Your task to perform on an android device: Search for handmade jewelry on Etsy. Image 0: 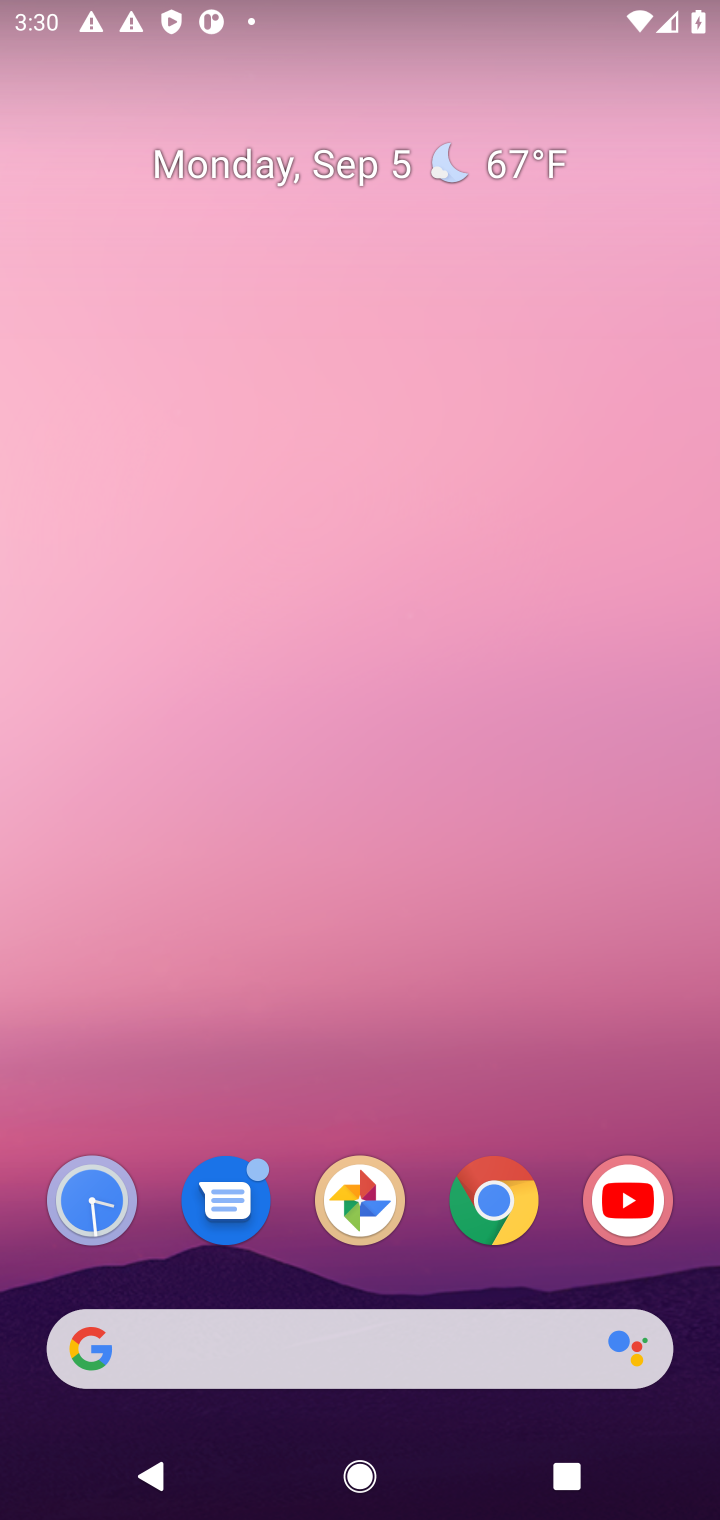
Step 0: click (212, 4)
Your task to perform on an android device: Search for handmade jewelry on Etsy. Image 1: 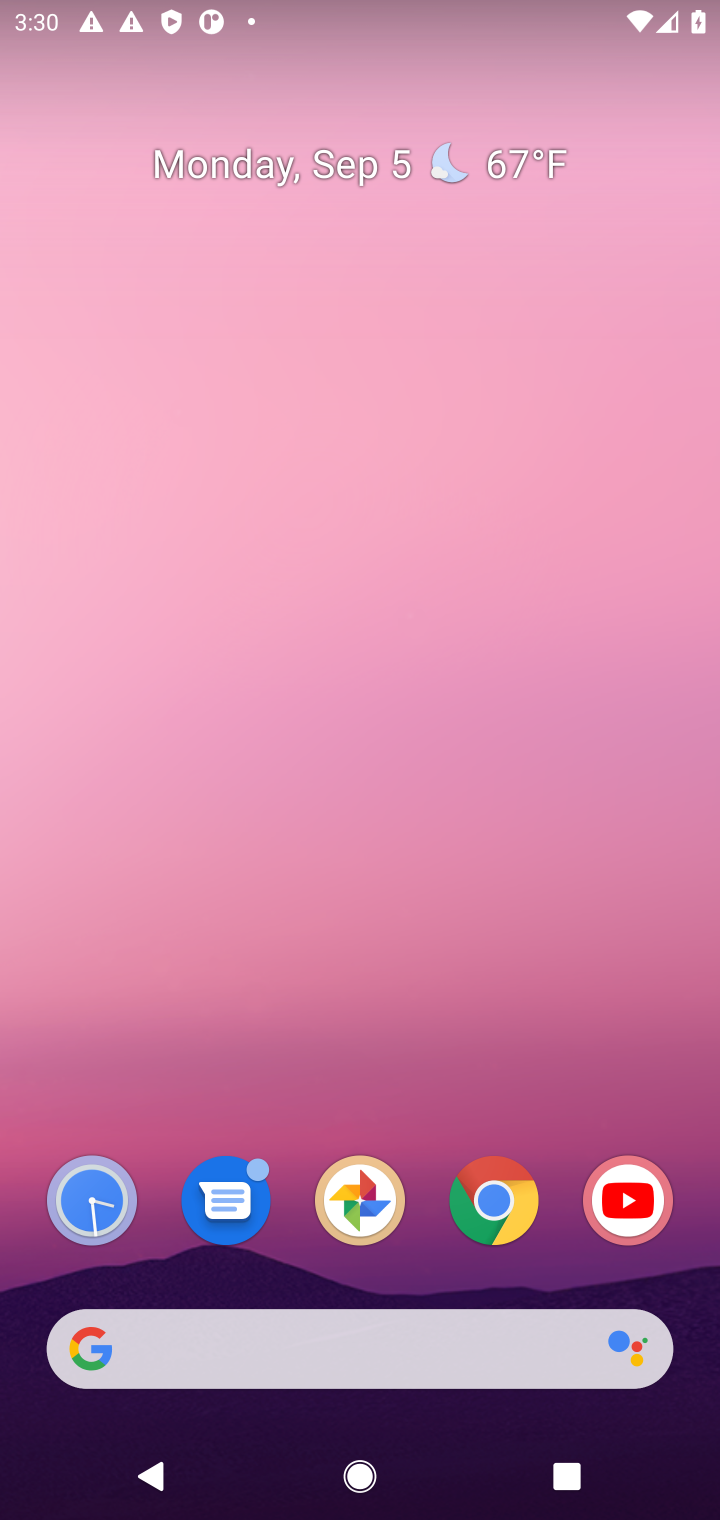
Step 1: click (414, 308)
Your task to perform on an android device: Search for handmade jewelry on Etsy. Image 2: 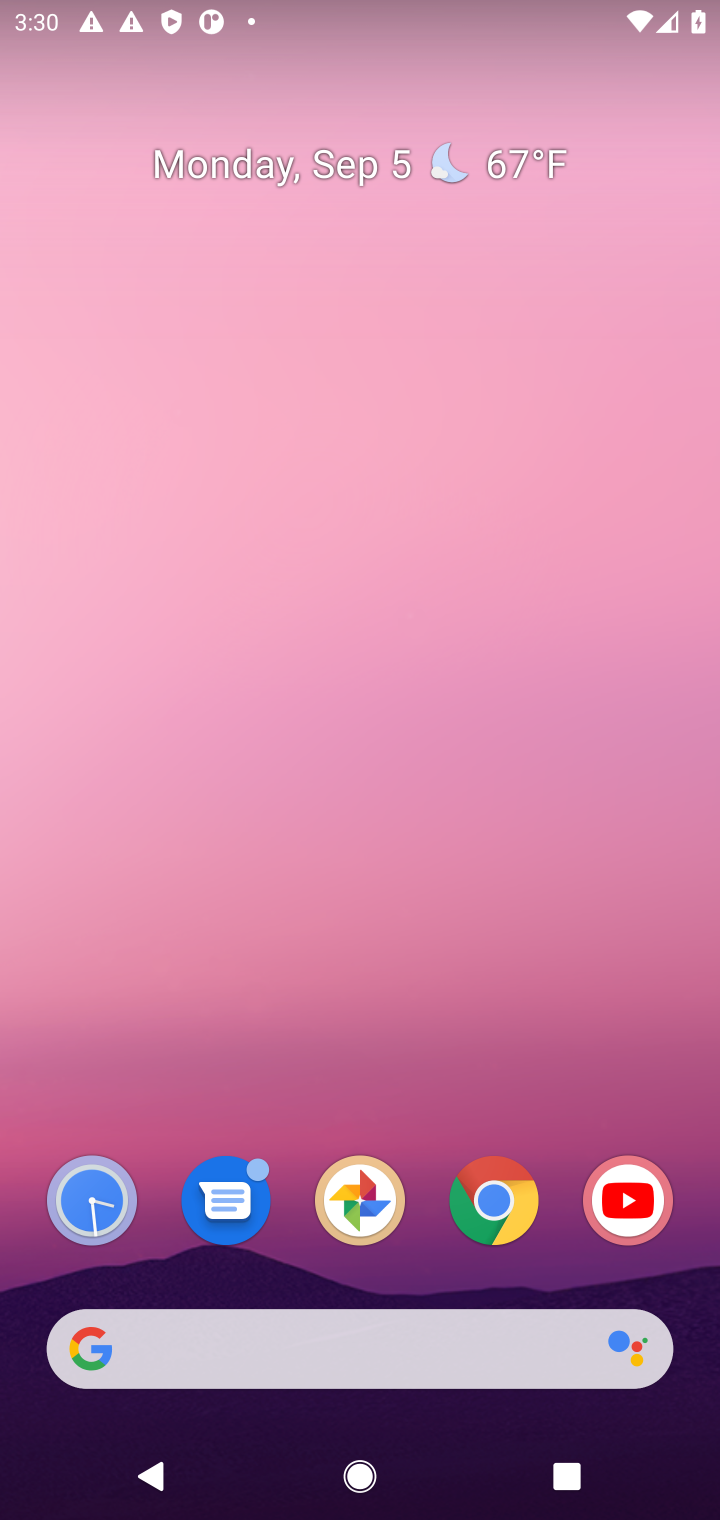
Step 2: click (495, 1189)
Your task to perform on an android device: Search for handmade jewelry on Etsy. Image 3: 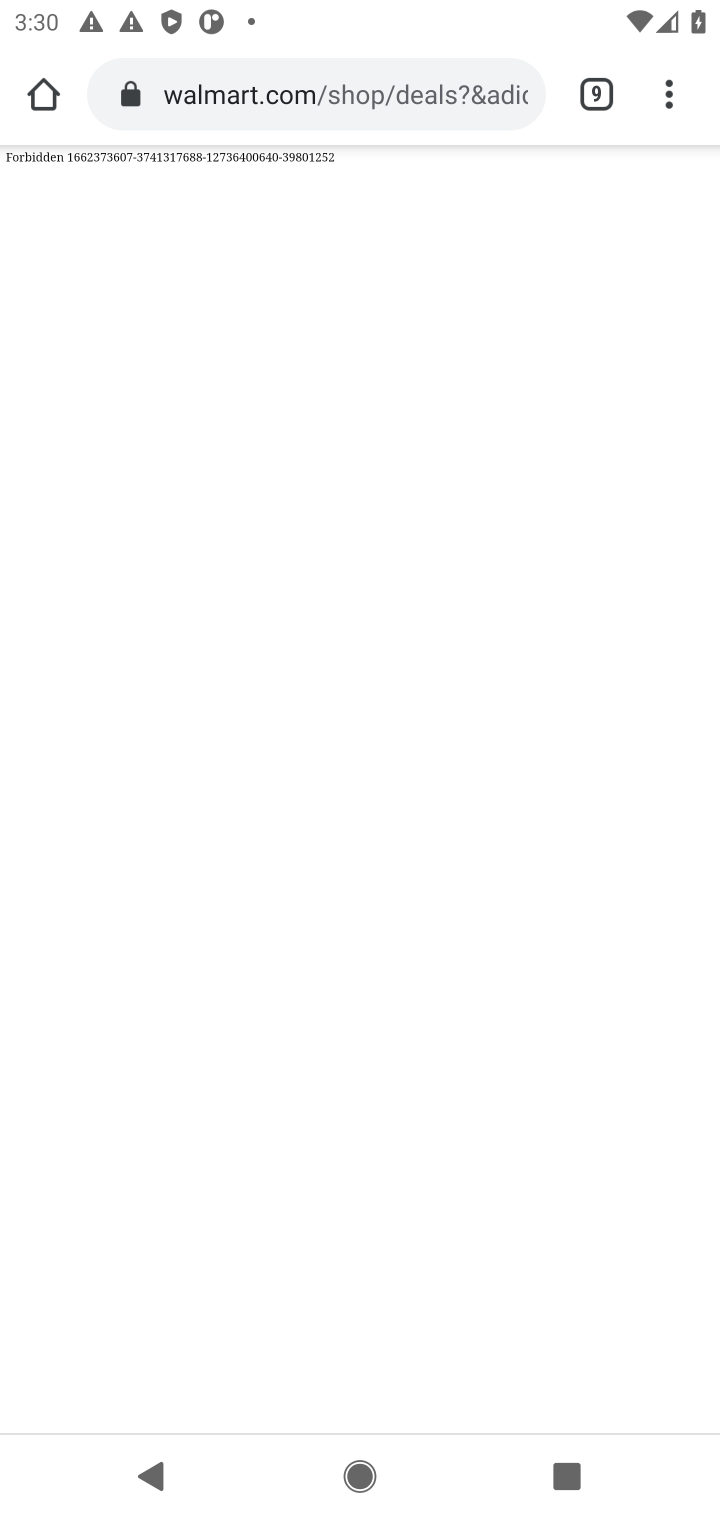
Step 3: click (596, 97)
Your task to perform on an android device: Search for handmade jewelry on Etsy. Image 4: 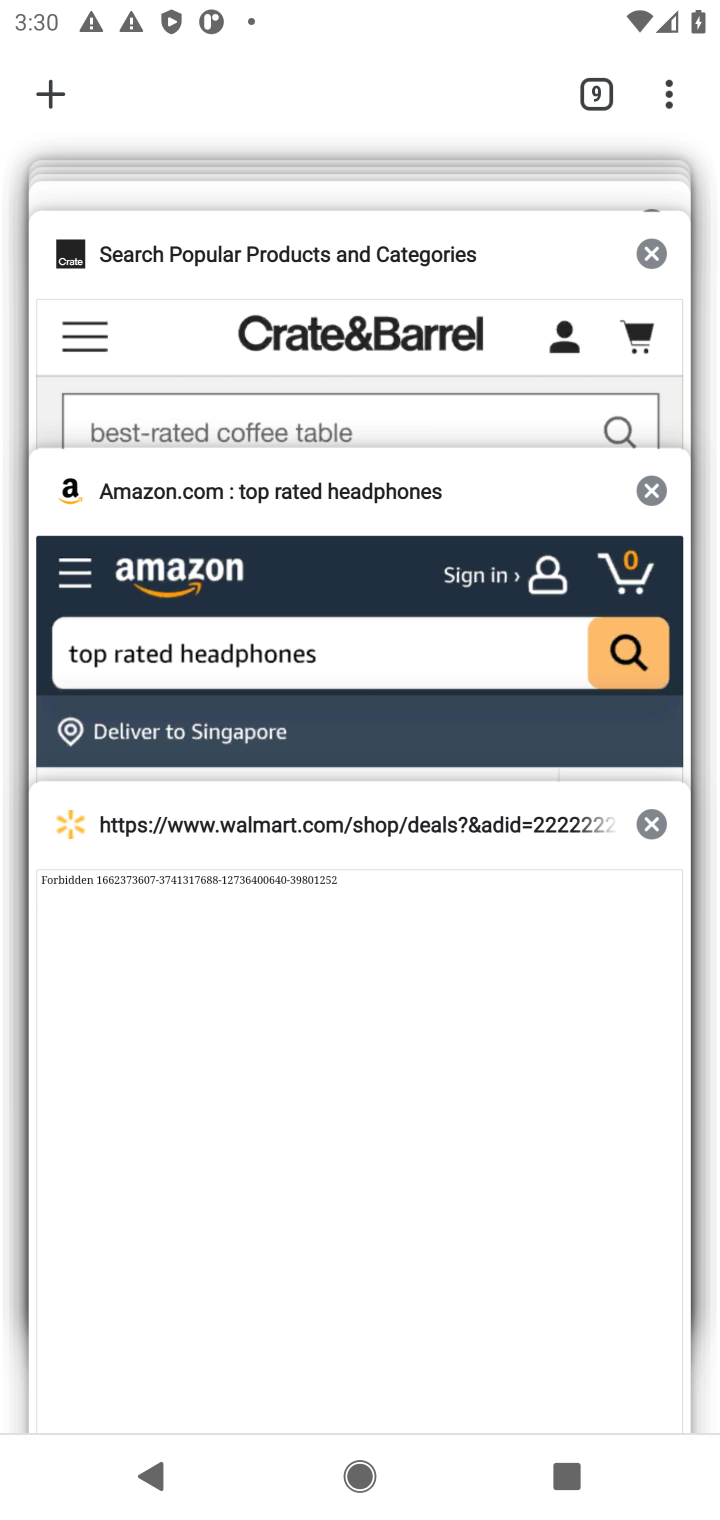
Step 4: click (53, 87)
Your task to perform on an android device: Search for handmade jewelry on Etsy. Image 5: 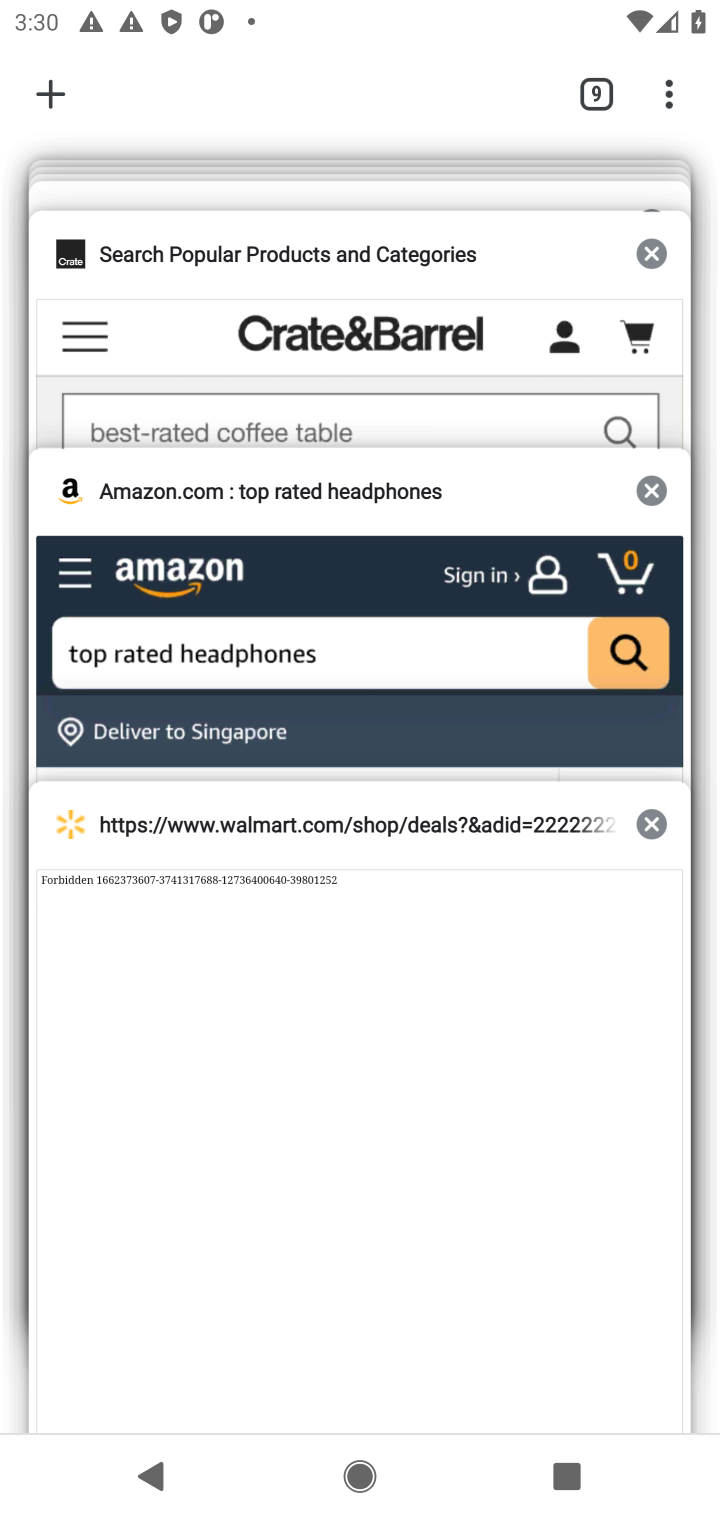
Step 5: click (53, 87)
Your task to perform on an android device: Search for handmade jewelry on Etsy. Image 6: 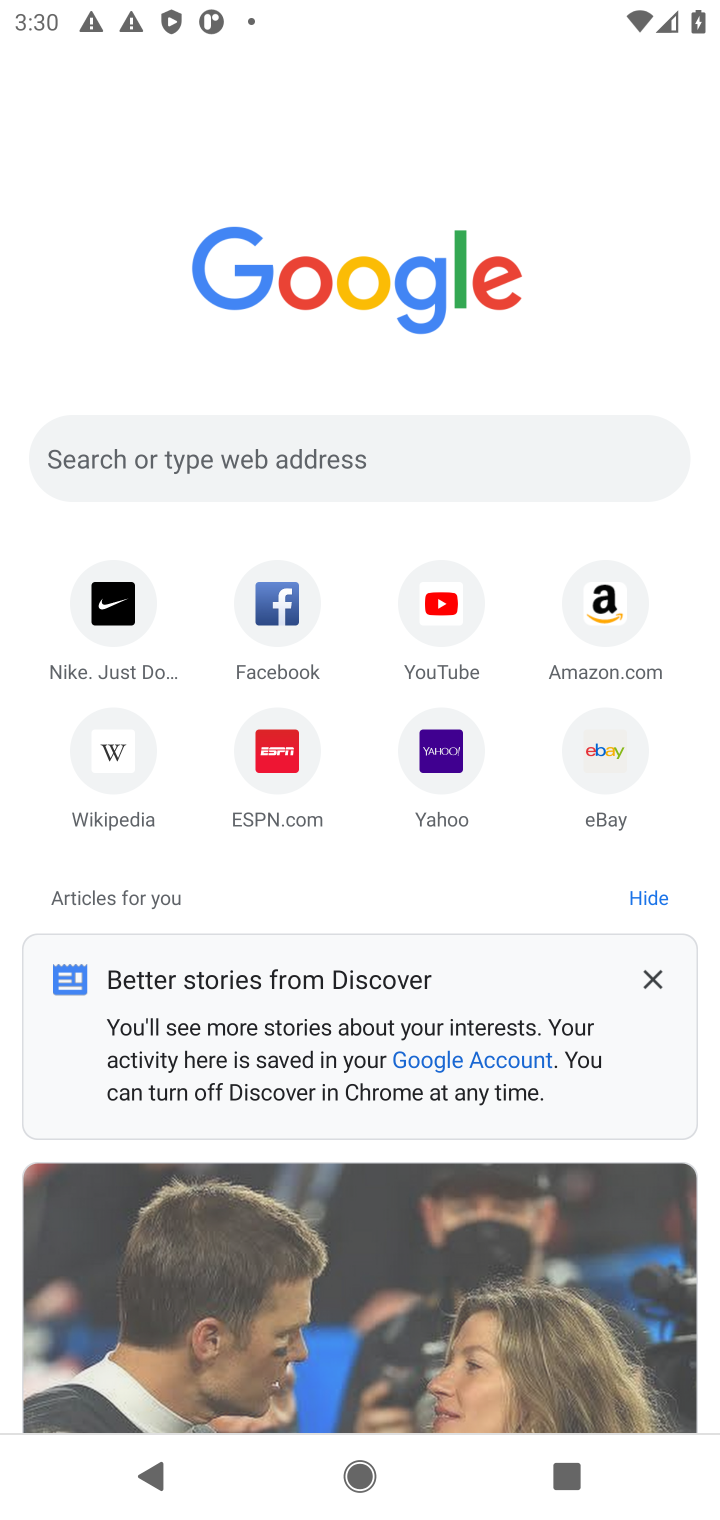
Step 6: click (235, 454)
Your task to perform on an android device: Search for handmade jewelry on Etsy. Image 7: 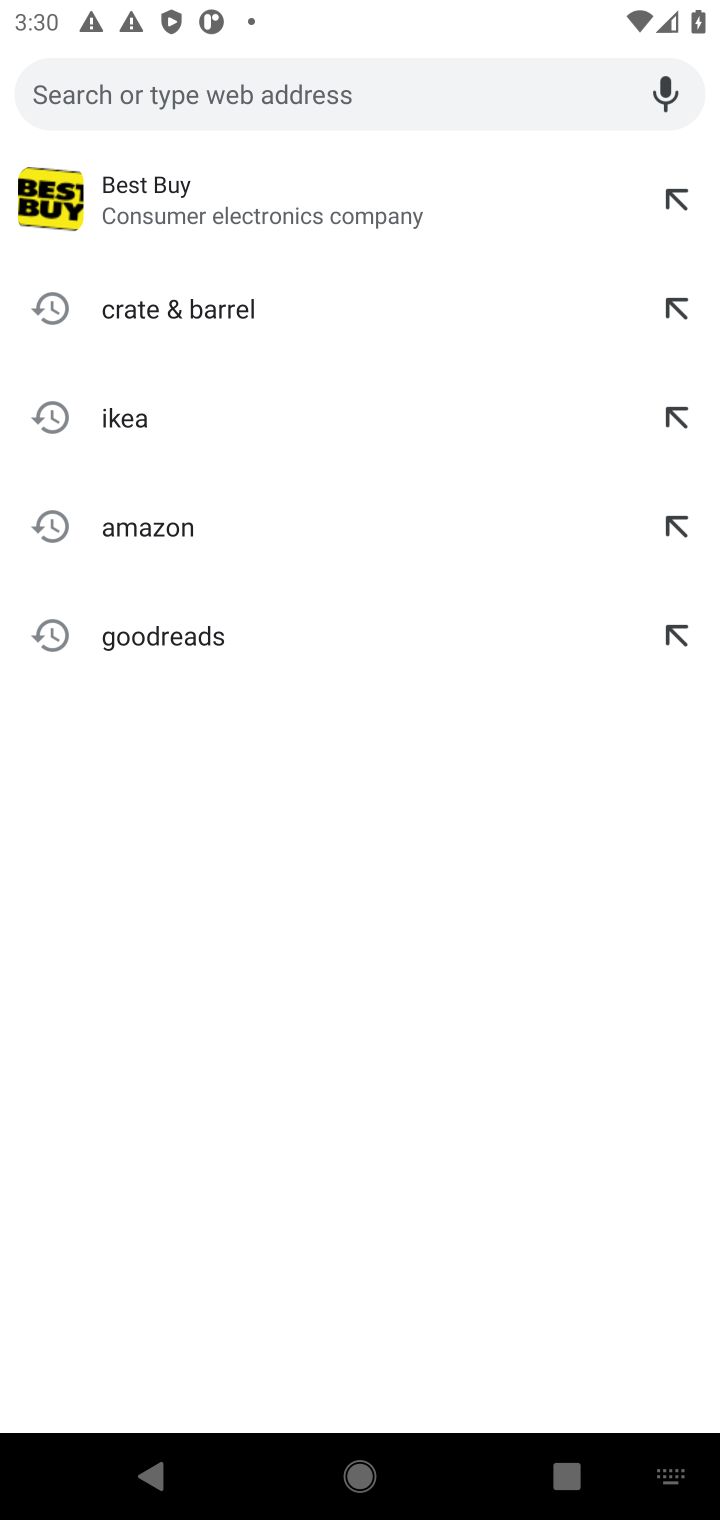
Step 7: type "etsy"
Your task to perform on an android device: Search for handmade jewelry on Etsy. Image 8: 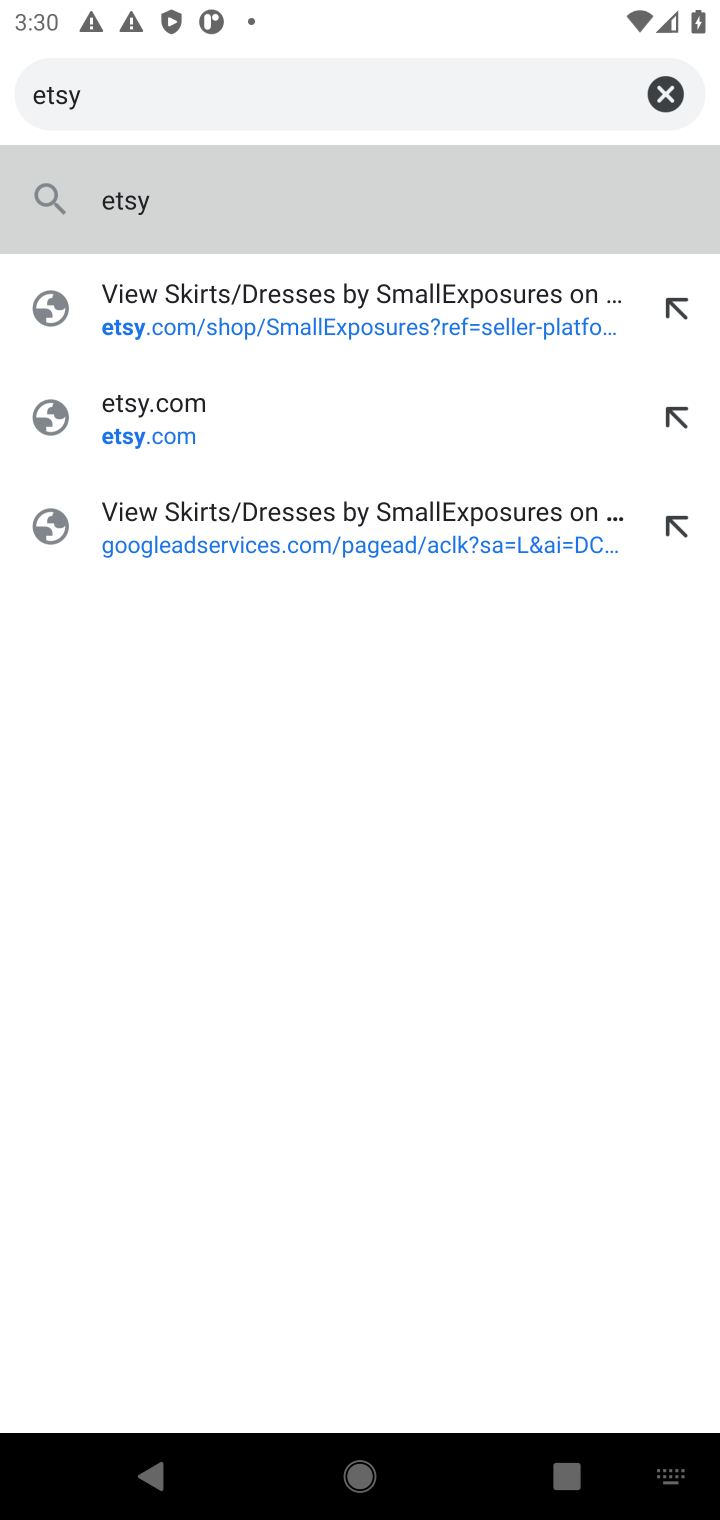
Step 8: click (134, 197)
Your task to perform on an android device: Search for handmade jewelry on Etsy. Image 9: 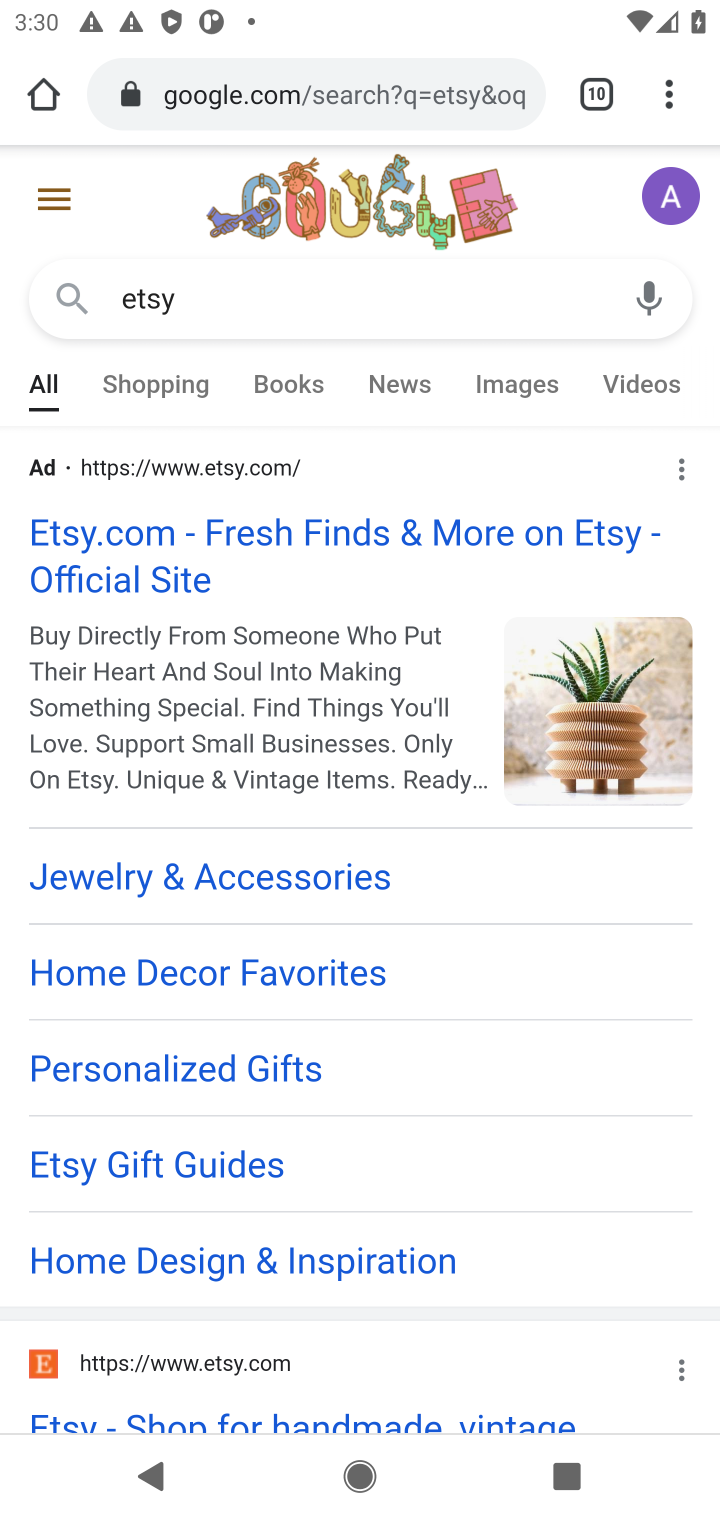
Step 9: click (179, 530)
Your task to perform on an android device: Search for handmade jewelry on Etsy. Image 10: 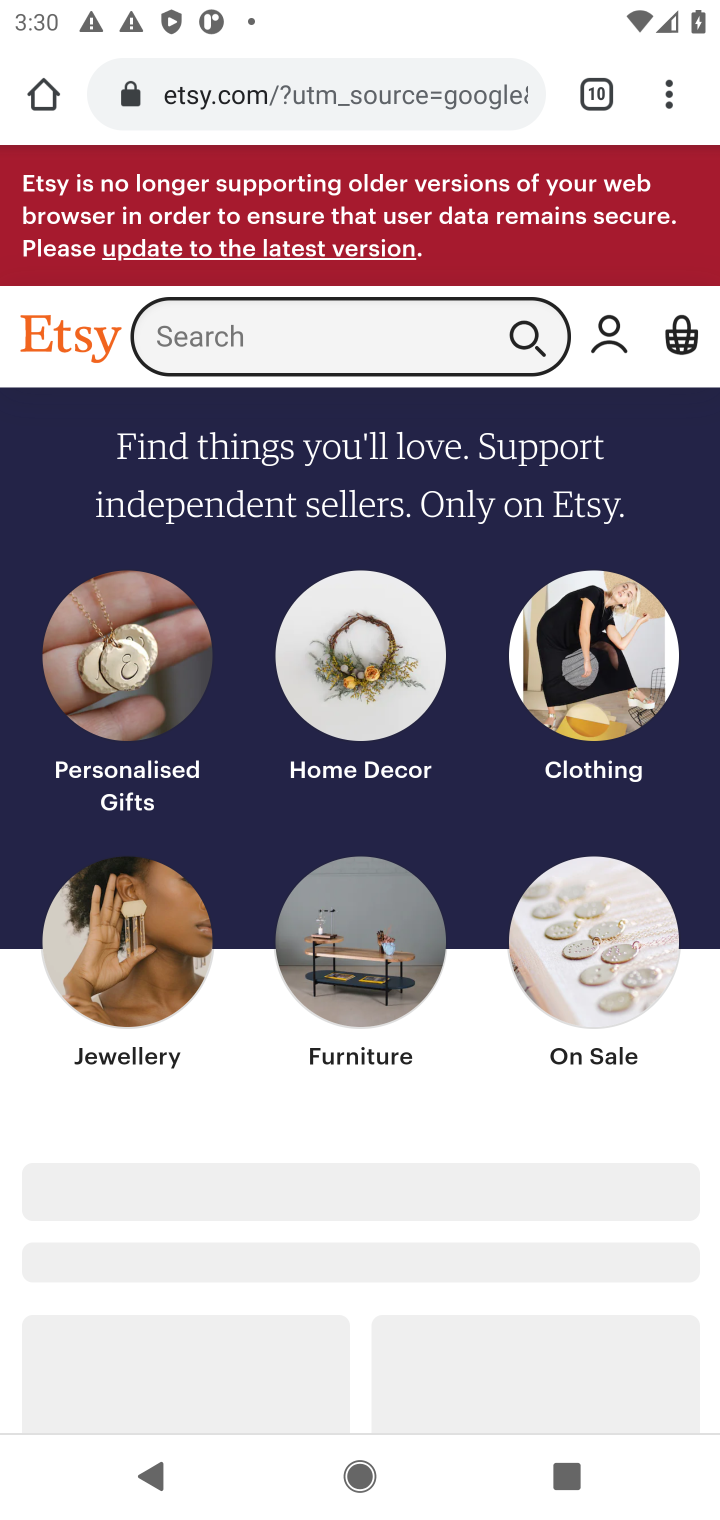
Step 10: click (284, 323)
Your task to perform on an android device: Search for handmade jewelry on Etsy. Image 11: 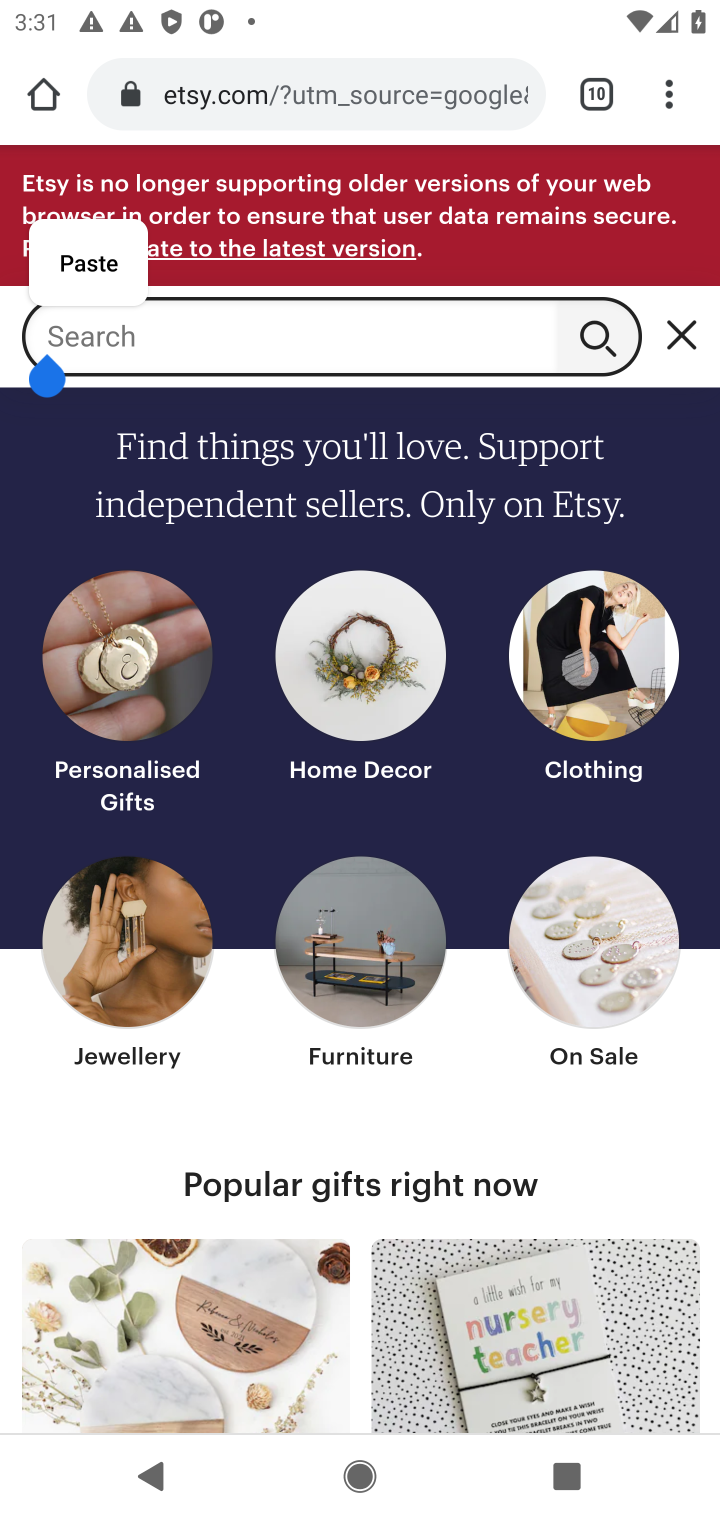
Step 11: type "handmade jewelry"
Your task to perform on an android device: Search for handmade jewelry on Etsy. Image 12: 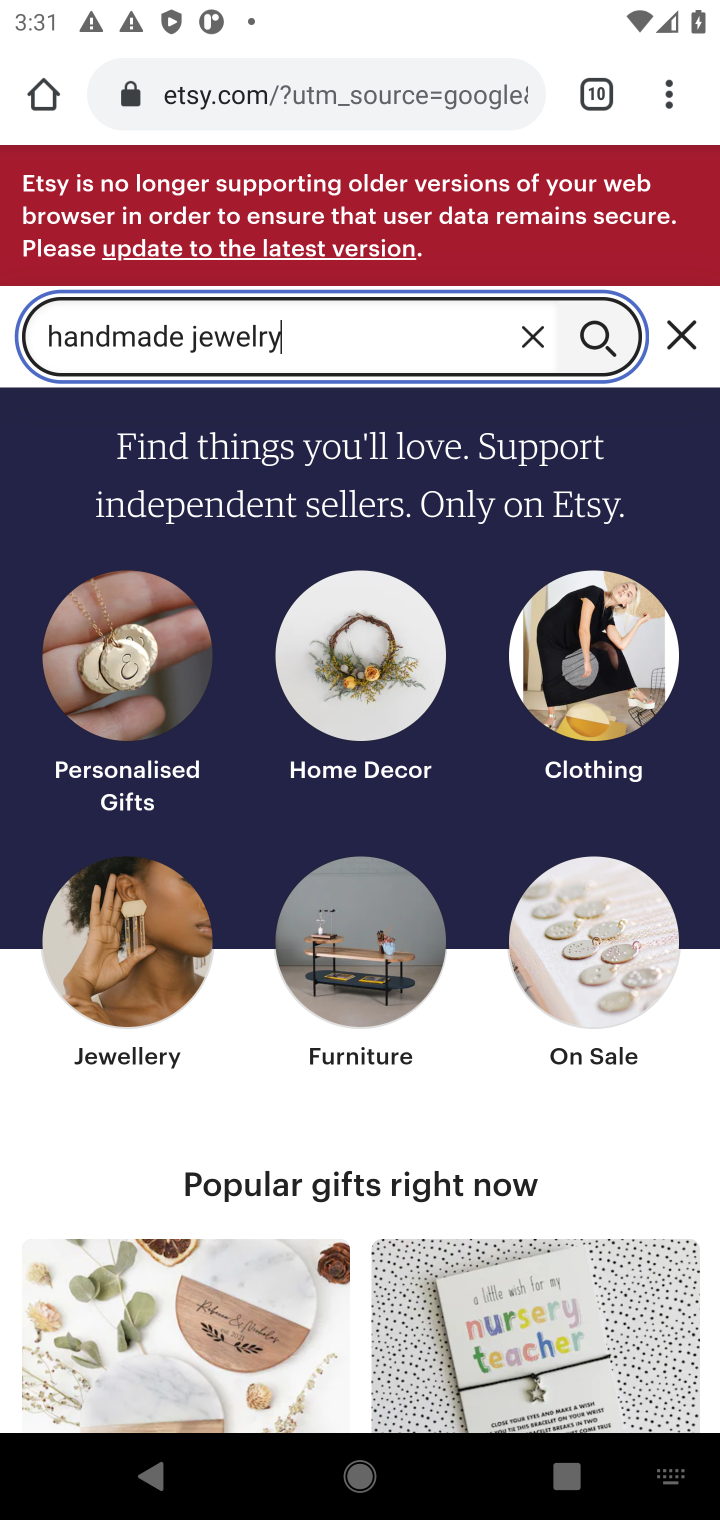
Step 12: click (215, 329)
Your task to perform on an android device: Search for handmade jewelry on Etsy. Image 13: 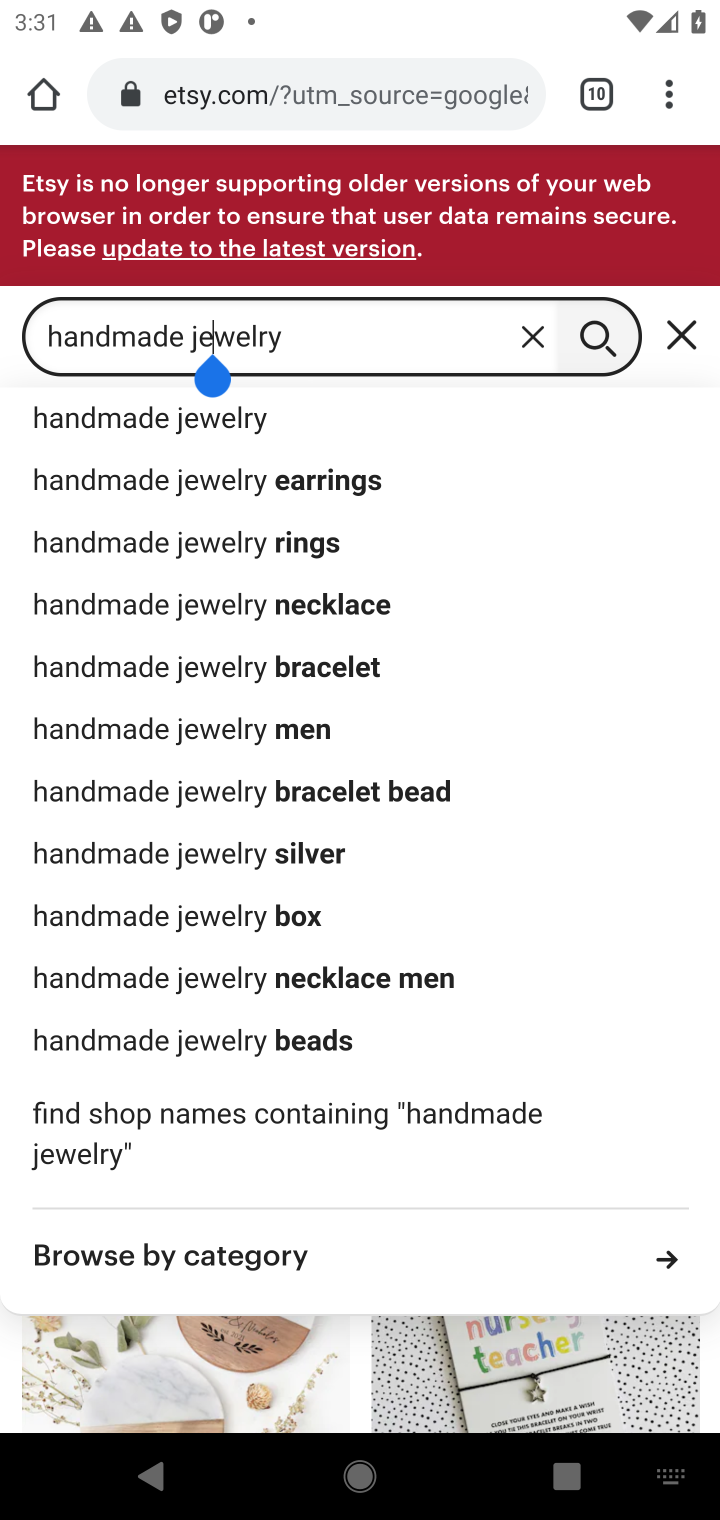
Step 13: click (579, 330)
Your task to perform on an android device: Search for handmade jewelry on Etsy. Image 14: 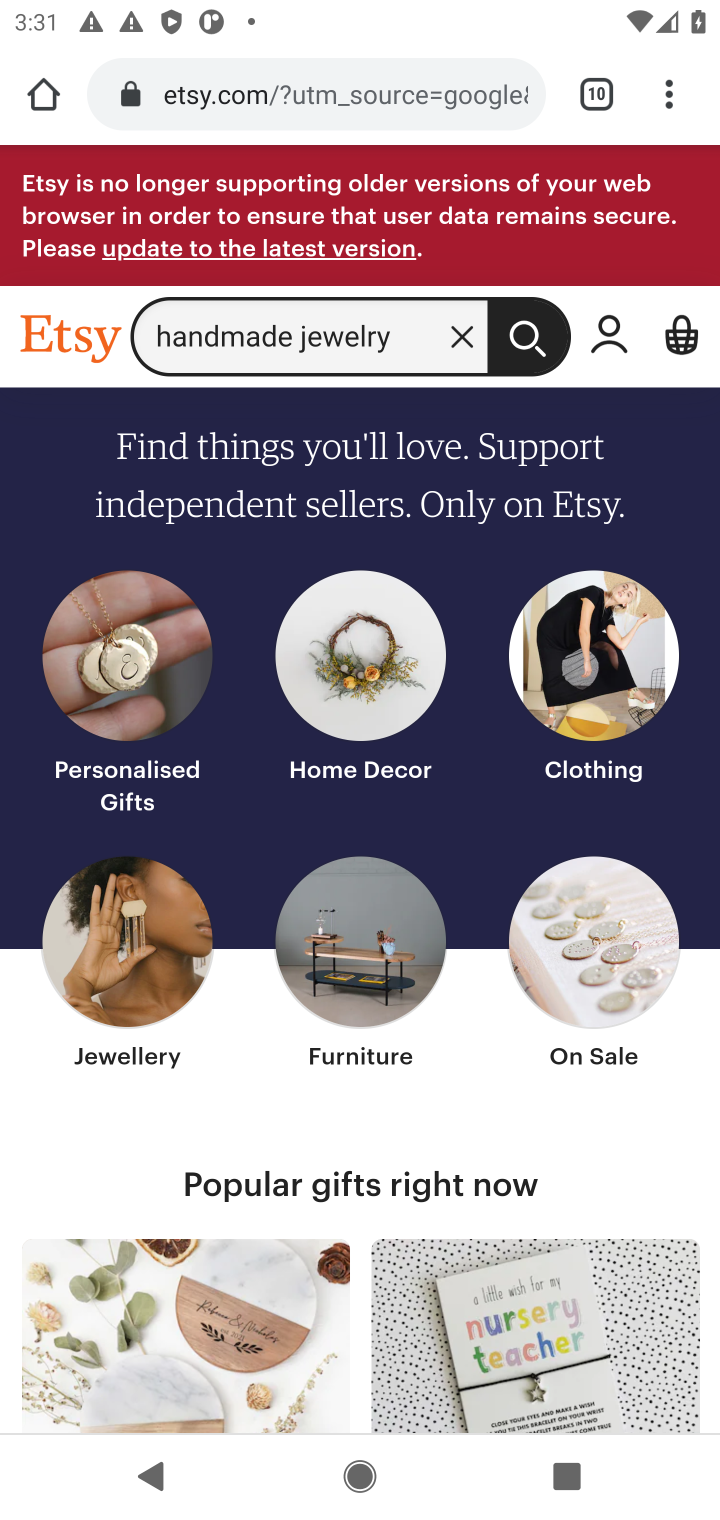
Step 14: click (515, 332)
Your task to perform on an android device: Search for handmade jewelry on Etsy. Image 15: 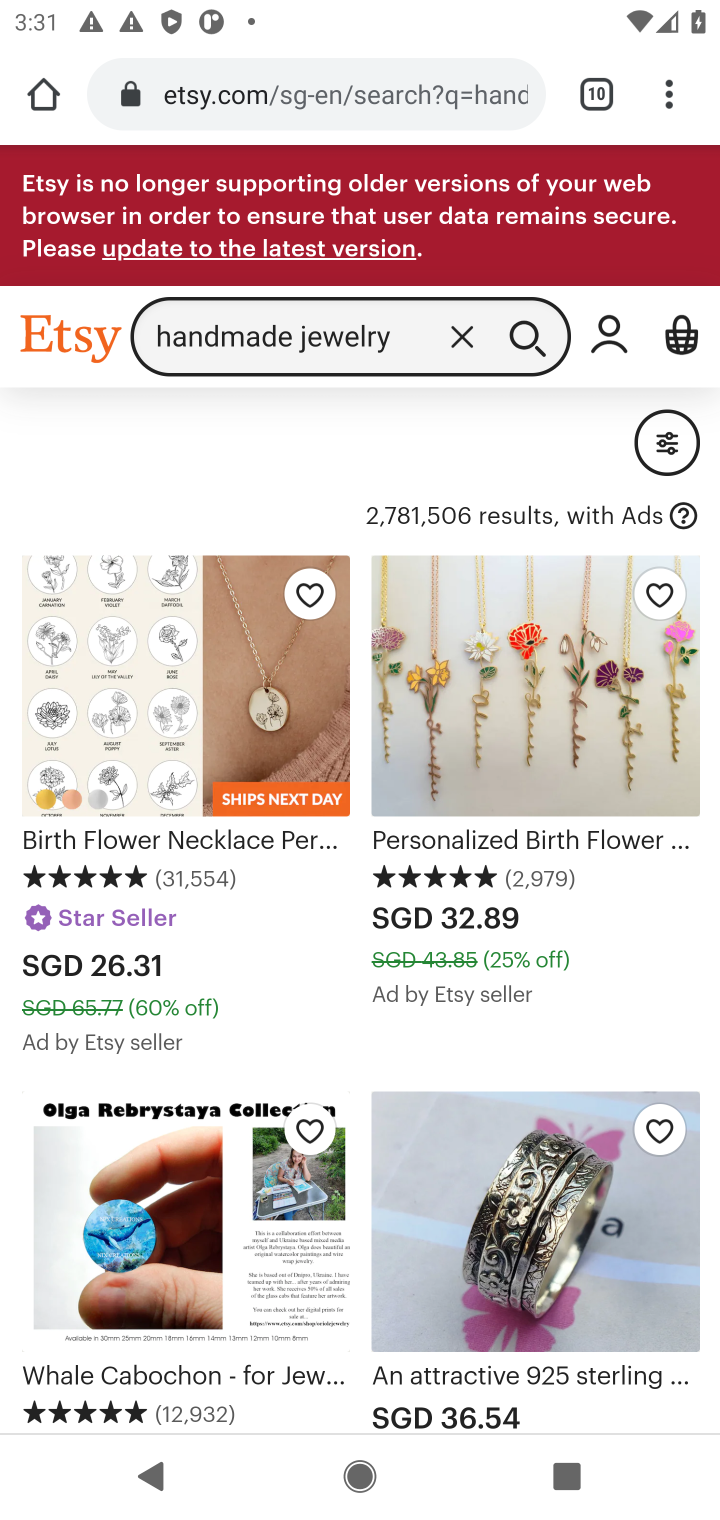
Step 15: task complete